Your task to perform on an android device: Open display settings Image 0: 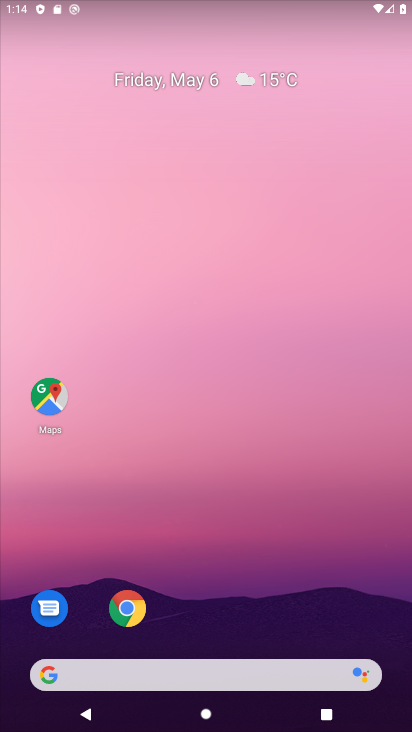
Step 0: drag from (233, 593) to (204, 4)
Your task to perform on an android device: Open display settings Image 1: 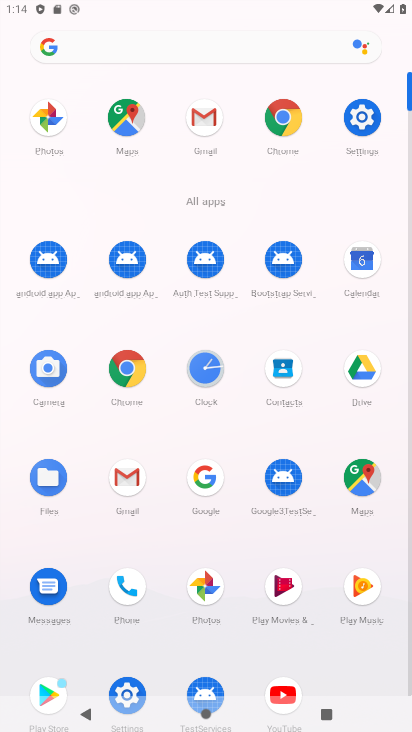
Step 1: click (129, 694)
Your task to perform on an android device: Open display settings Image 2: 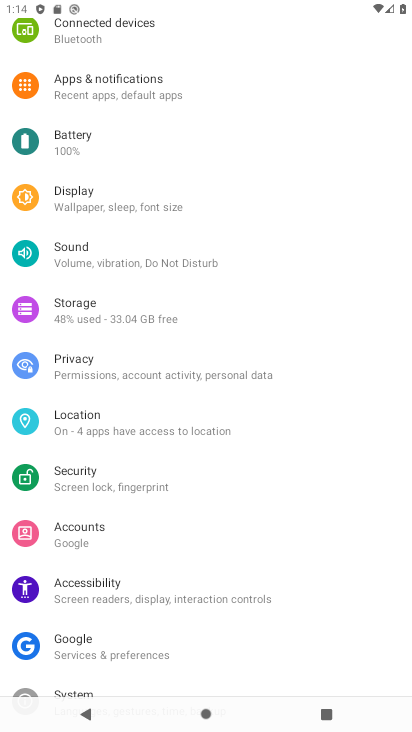
Step 2: click (126, 185)
Your task to perform on an android device: Open display settings Image 3: 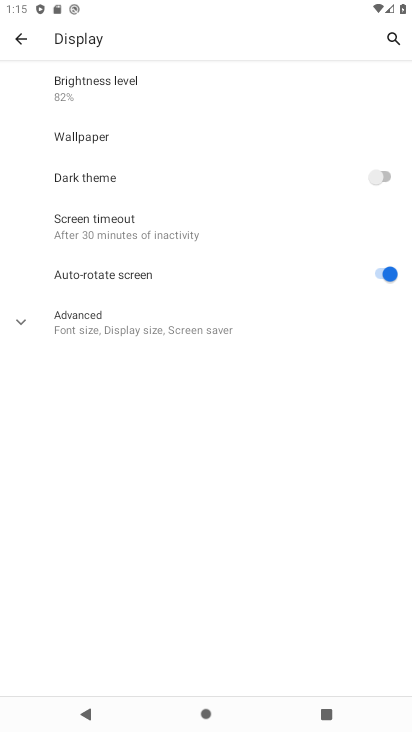
Step 3: task complete